Your task to perform on an android device: empty trash in the gmail app Image 0: 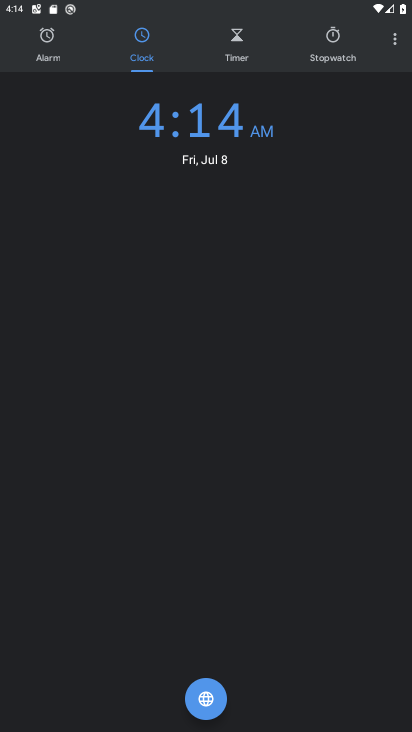
Step 0: press home button
Your task to perform on an android device: empty trash in the gmail app Image 1: 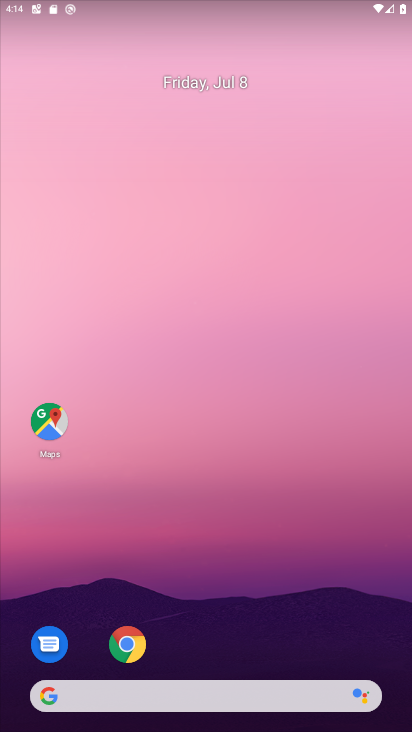
Step 1: drag from (381, 652) to (336, 164)
Your task to perform on an android device: empty trash in the gmail app Image 2: 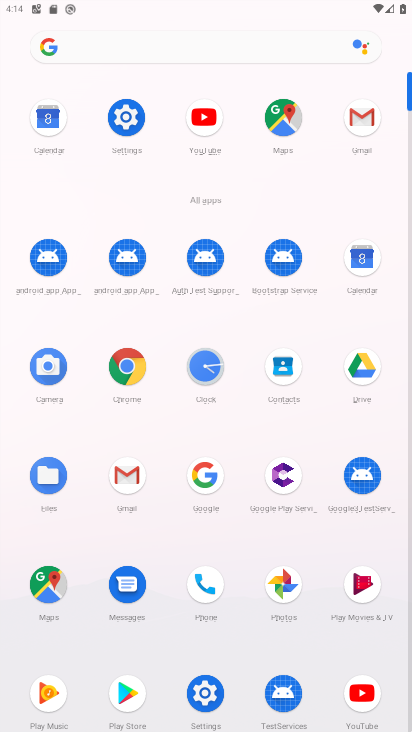
Step 2: click (125, 477)
Your task to perform on an android device: empty trash in the gmail app Image 3: 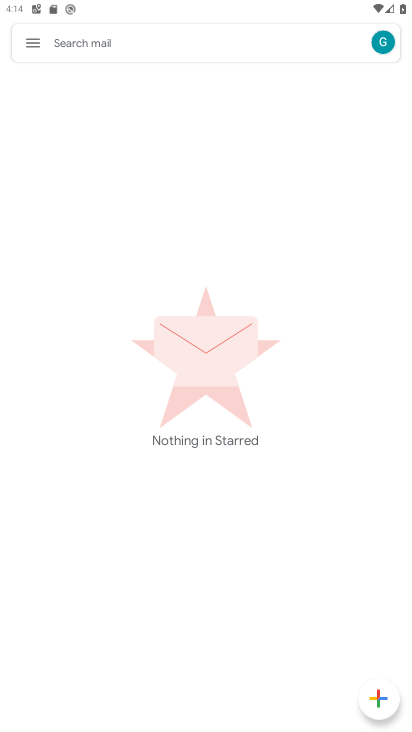
Step 3: click (30, 44)
Your task to perform on an android device: empty trash in the gmail app Image 4: 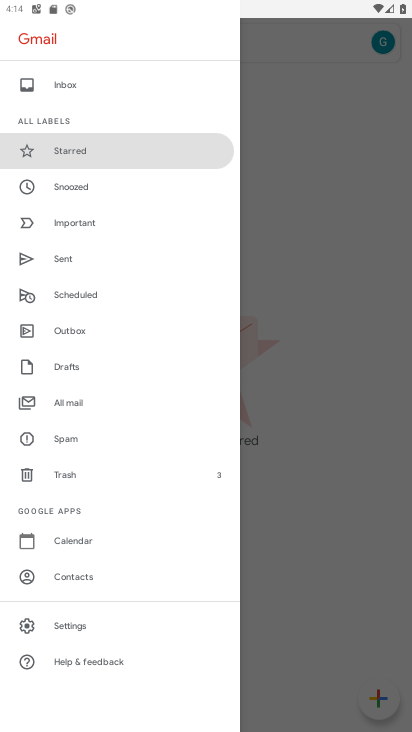
Step 4: click (65, 475)
Your task to perform on an android device: empty trash in the gmail app Image 5: 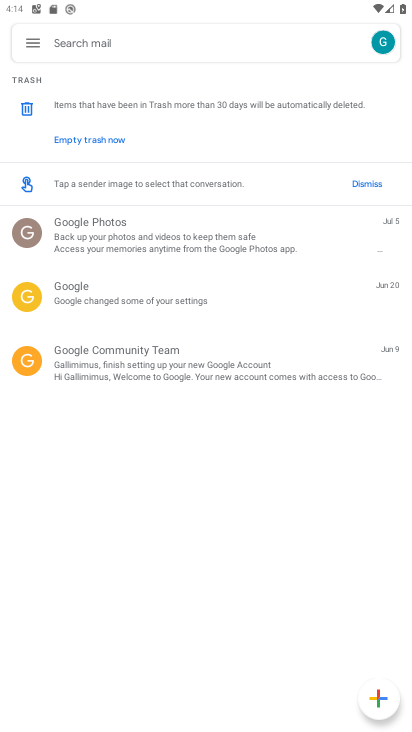
Step 5: click (82, 138)
Your task to perform on an android device: empty trash in the gmail app Image 6: 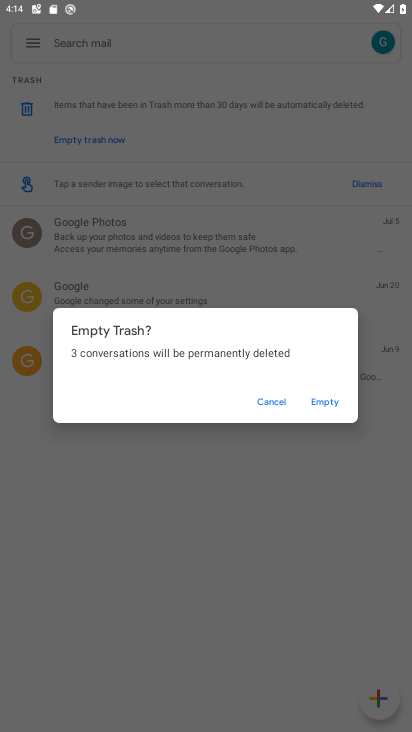
Step 6: click (328, 404)
Your task to perform on an android device: empty trash in the gmail app Image 7: 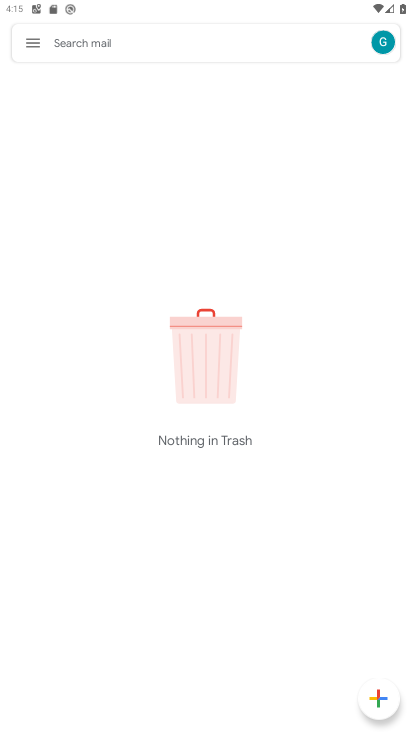
Step 7: task complete